Your task to perform on an android device: all mails in gmail Image 0: 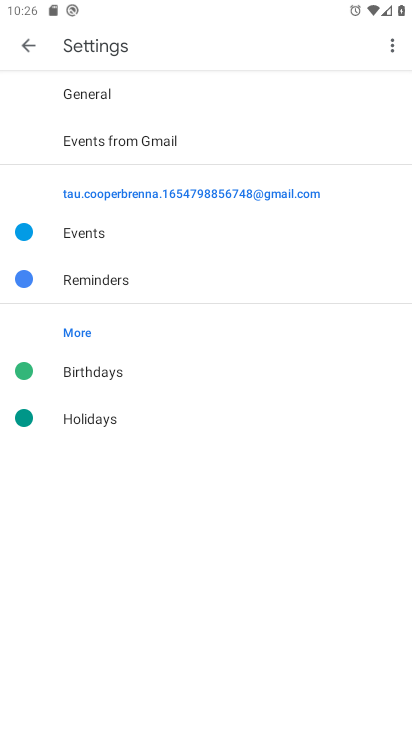
Step 0: drag from (162, 518) to (222, 209)
Your task to perform on an android device: all mails in gmail Image 1: 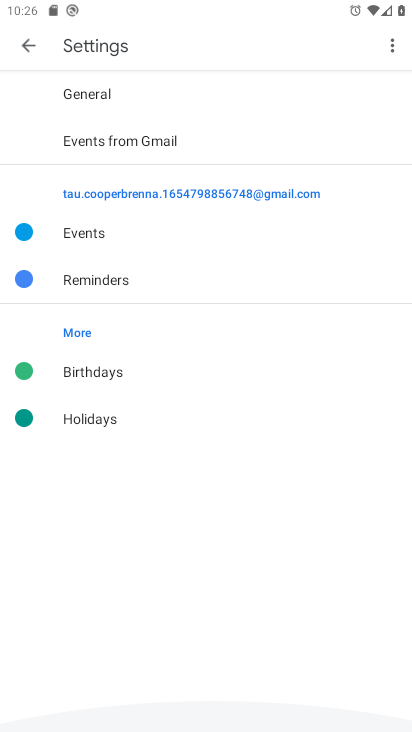
Step 1: drag from (185, 150) to (176, 642)
Your task to perform on an android device: all mails in gmail Image 2: 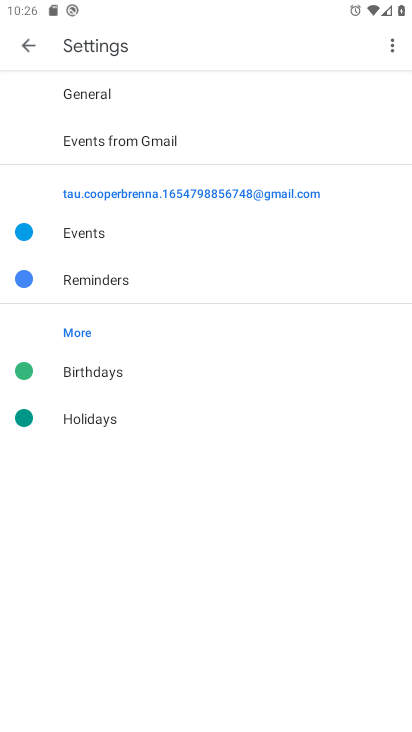
Step 2: drag from (216, 96) to (411, 650)
Your task to perform on an android device: all mails in gmail Image 3: 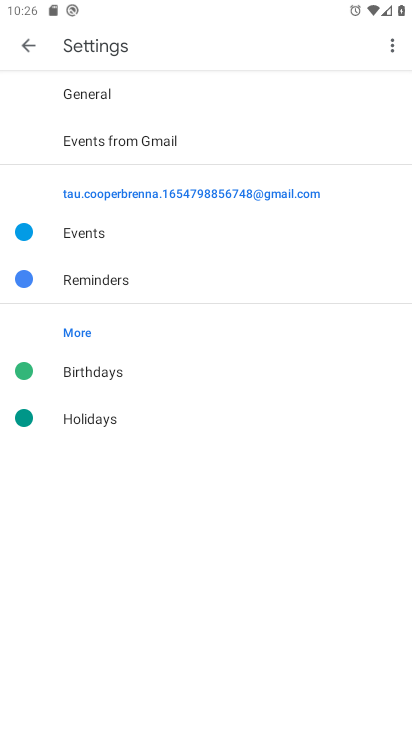
Step 3: press back button
Your task to perform on an android device: all mails in gmail Image 4: 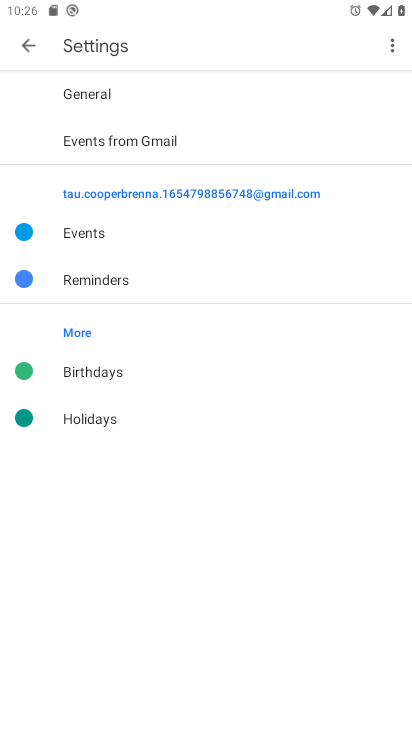
Step 4: press home button
Your task to perform on an android device: all mails in gmail Image 5: 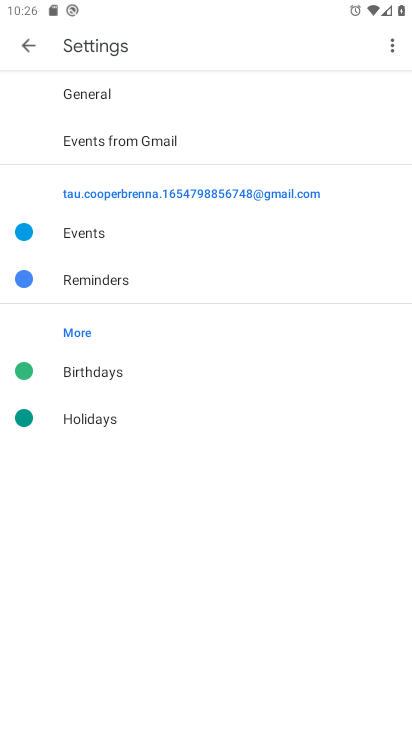
Step 5: drag from (176, 645) to (322, 44)
Your task to perform on an android device: all mails in gmail Image 6: 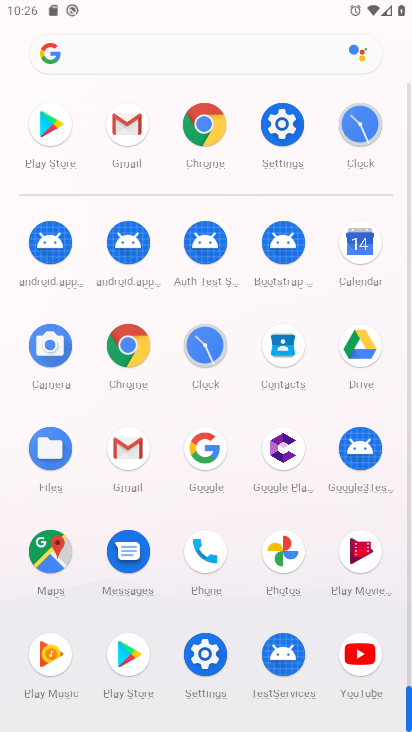
Step 6: click (128, 445)
Your task to perform on an android device: all mails in gmail Image 7: 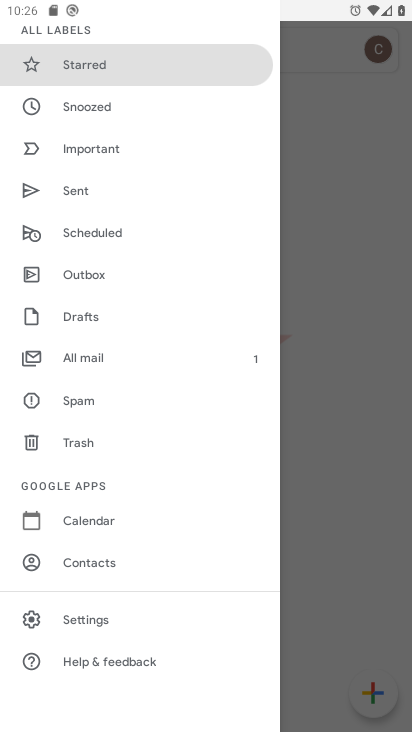
Step 7: drag from (124, 454) to (193, 241)
Your task to perform on an android device: all mails in gmail Image 8: 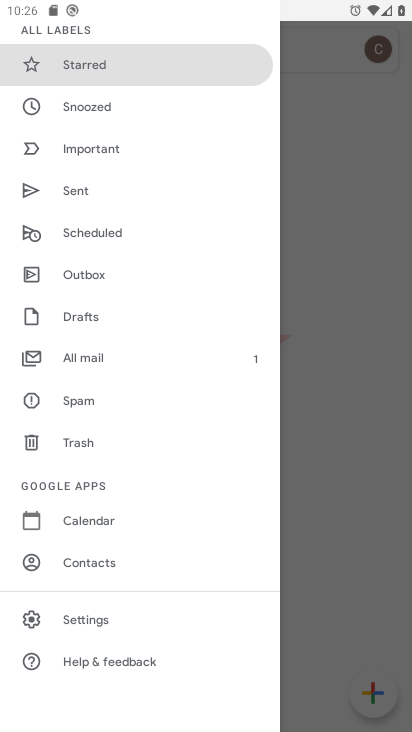
Step 8: click (97, 357)
Your task to perform on an android device: all mails in gmail Image 9: 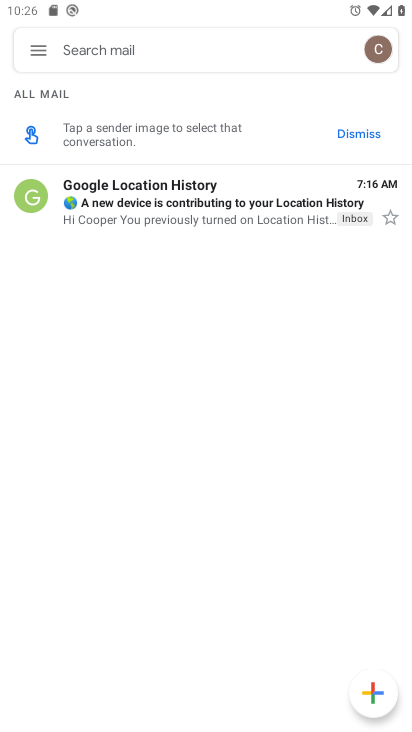
Step 9: drag from (294, 613) to (283, 201)
Your task to perform on an android device: all mails in gmail Image 10: 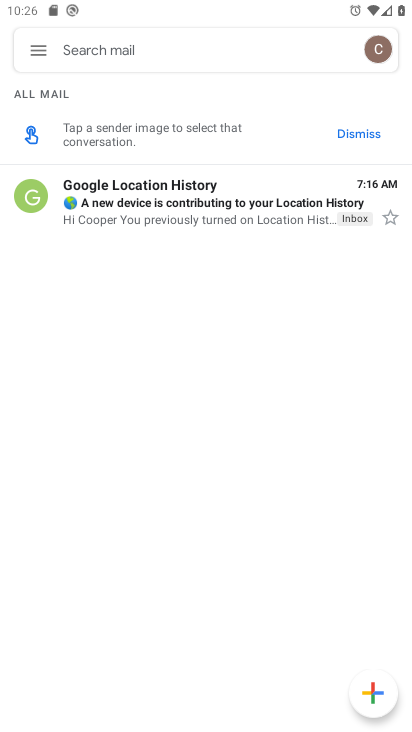
Step 10: click (29, 49)
Your task to perform on an android device: all mails in gmail Image 11: 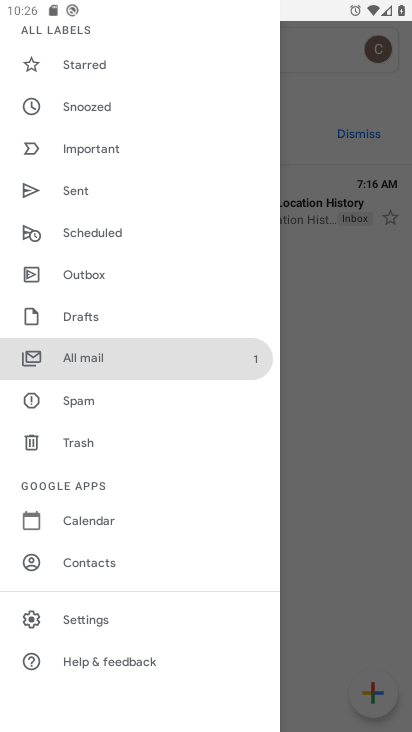
Step 11: task complete